Your task to perform on an android device: Open CNN.com Image 0: 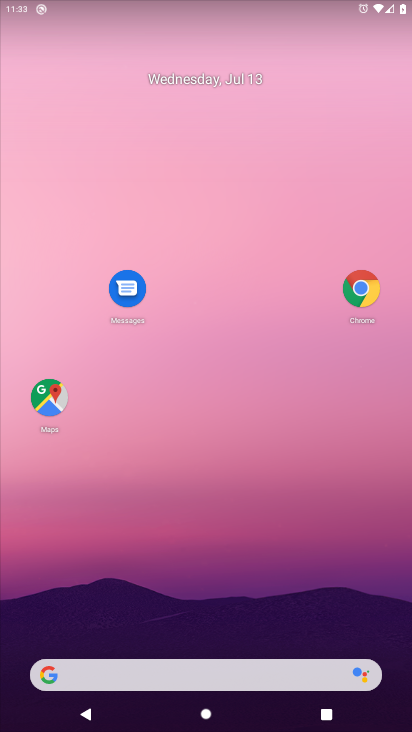
Step 0: click (170, 669)
Your task to perform on an android device: Open CNN.com Image 1: 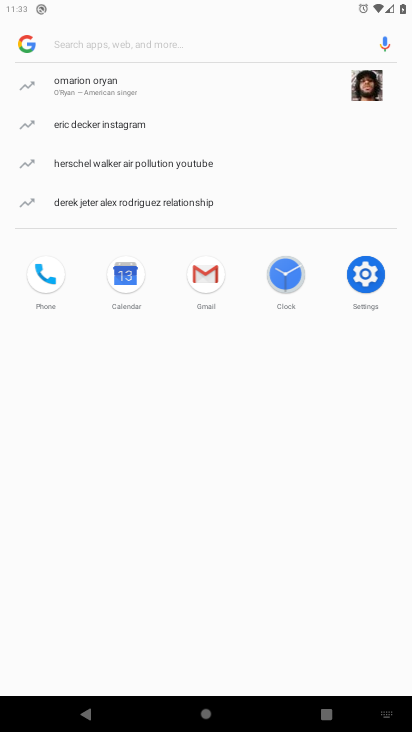
Step 1: type "CNN.com"
Your task to perform on an android device: Open CNN.com Image 2: 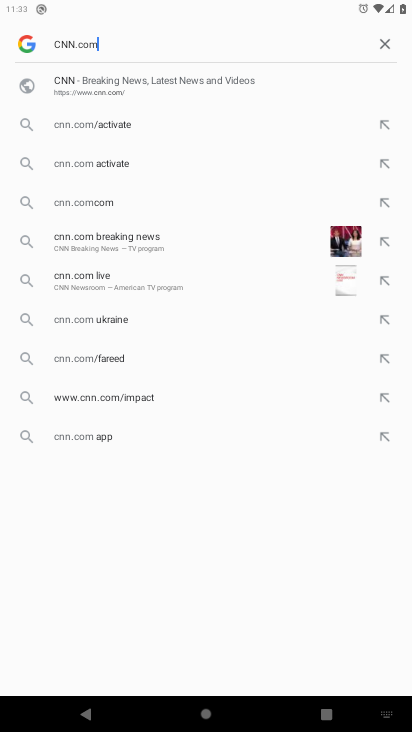
Step 2: type ""
Your task to perform on an android device: Open CNN.com Image 3: 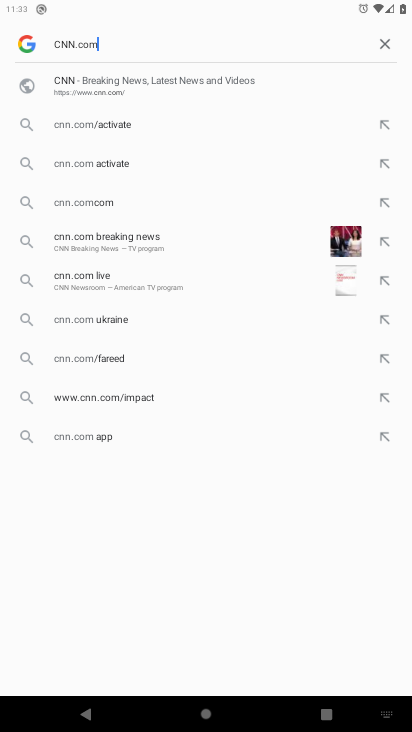
Step 3: type ""
Your task to perform on an android device: Open CNN.com Image 4: 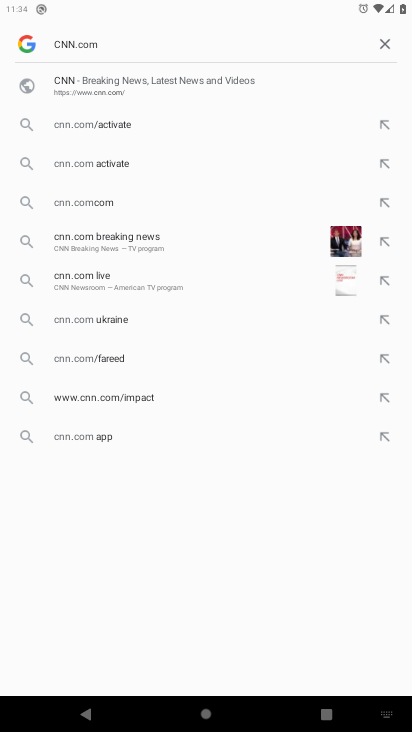
Step 4: task complete